Your task to perform on an android device: turn off location Image 0: 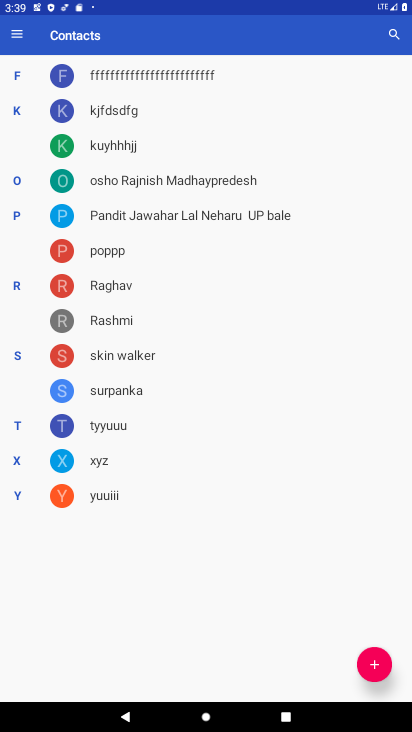
Step 0: press home button
Your task to perform on an android device: turn off location Image 1: 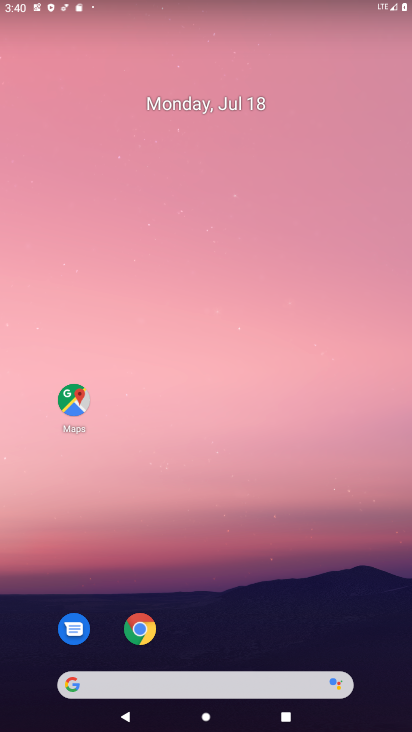
Step 1: drag from (210, 622) to (360, 9)
Your task to perform on an android device: turn off location Image 2: 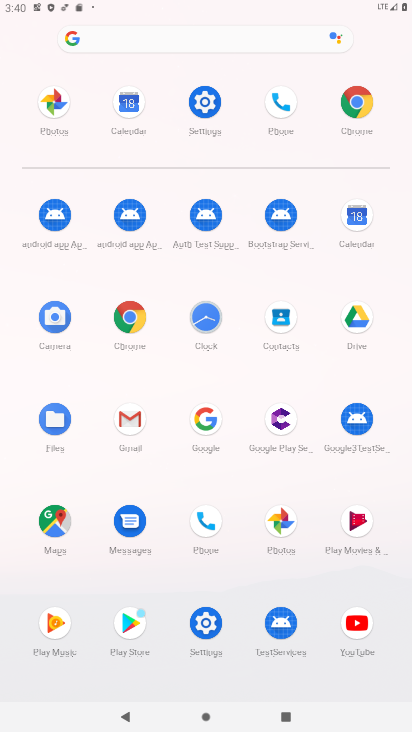
Step 2: click (207, 626)
Your task to perform on an android device: turn off location Image 3: 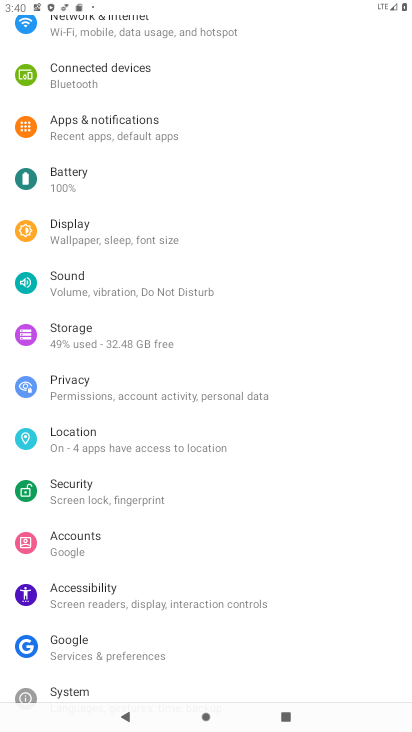
Step 3: click (100, 444)
Your task to perform on an android device: turn off location Image 4: 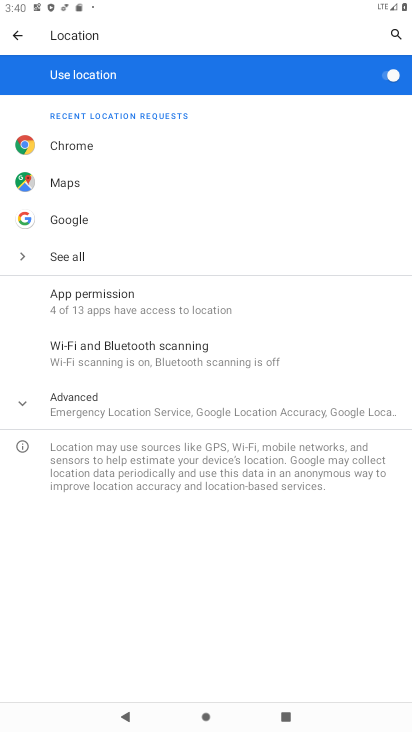
Step 4: click (369, 83)
Your task to perform on an android device: turn off location Image 5: 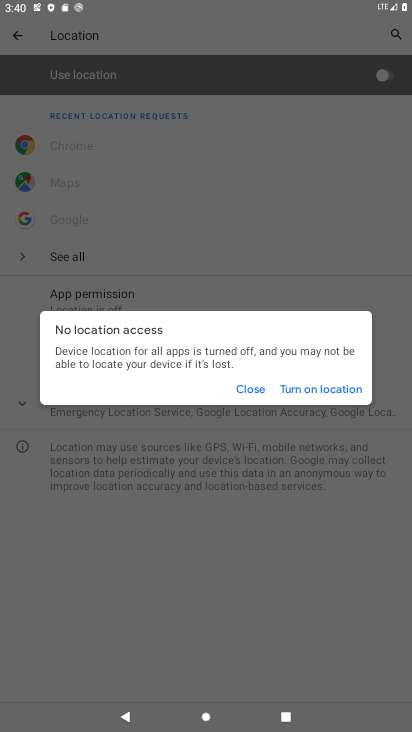
Step 5: click (246, 389)
Your task to perform on an android device: turn off location Image 6: 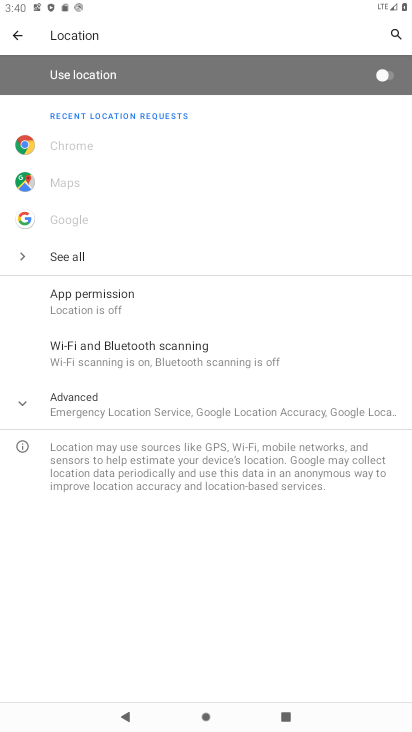
Step 6: task complete